Your task to perform on an android device: Open Youtube and go to the subscriptions tab Image 0: 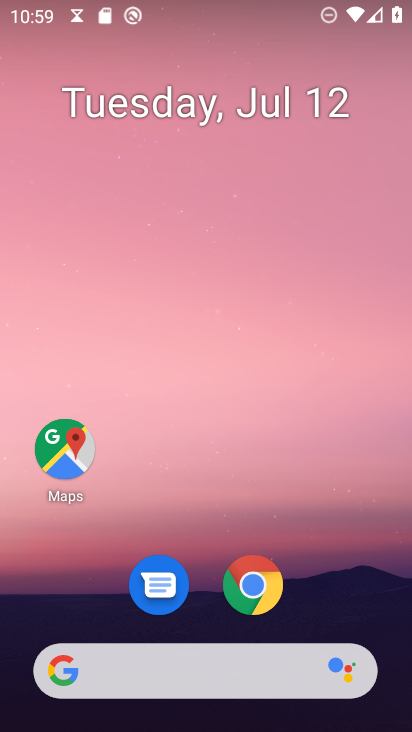
Step 0: drag from (217, 669) to (189, 15)
Your task to perform on an android device: Open Youtube and go to the subscriptions tab Image 1: 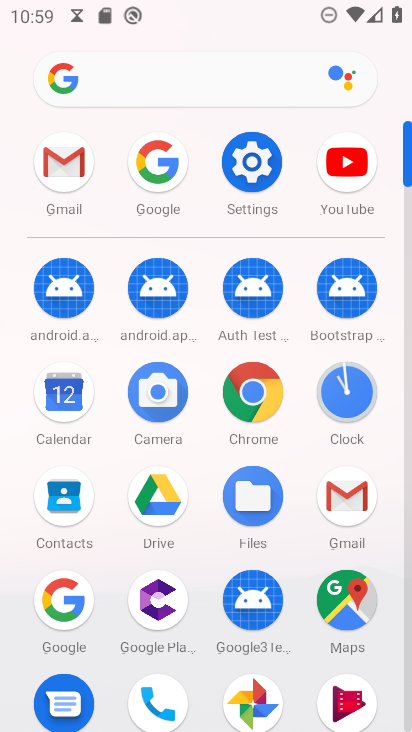
Step 1: click (349, 165)
Your task to perform on an android device: Open Youtube and go to the subscriptions tab Image 2: 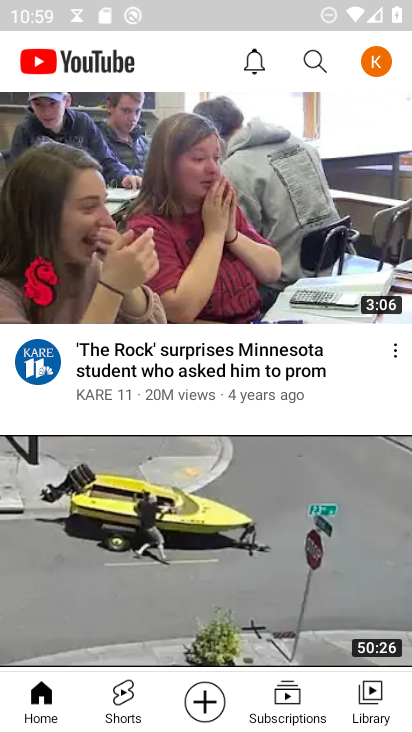
Step 2: click (293, 706)
Your task to perform on an android device: Open Youtube and go to the subscriptions tab Image 3: 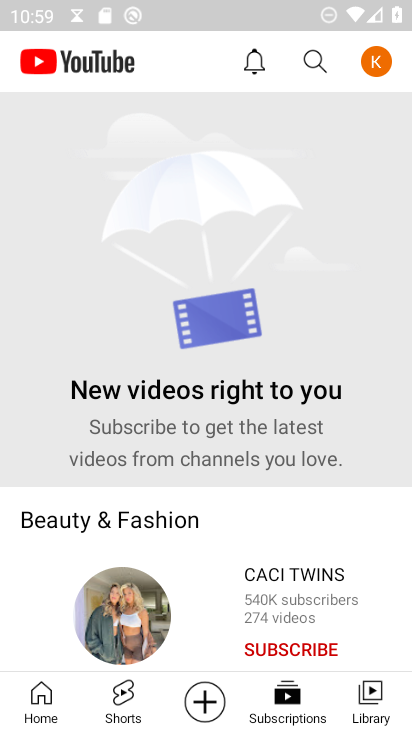
Step 3: task complete